Your task to perform on an android device: empty trash in the gmail app Image 0: 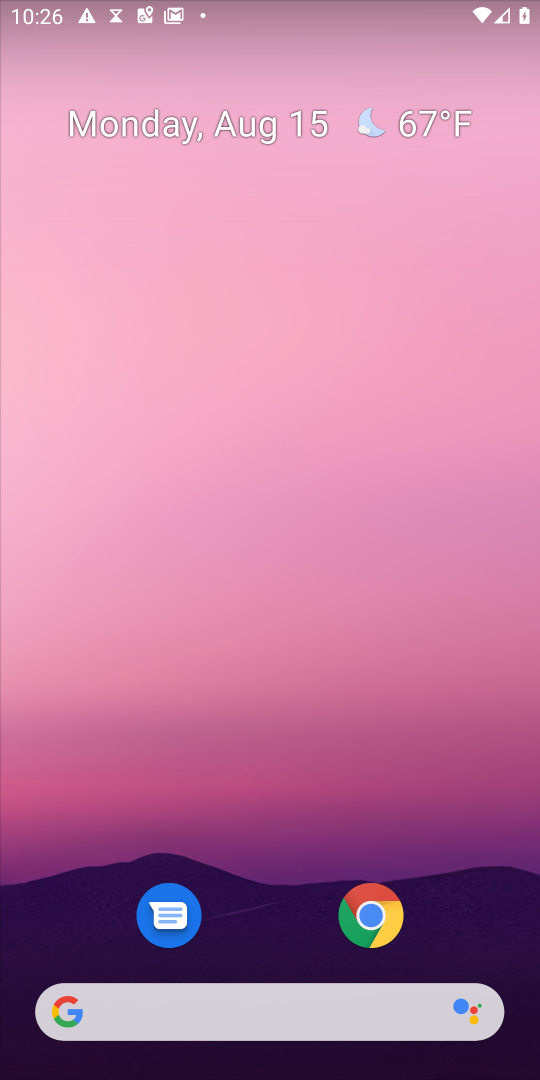
Step 0: press home button
Your task to perform on an android device: empty trash in the gmail app Image 1: 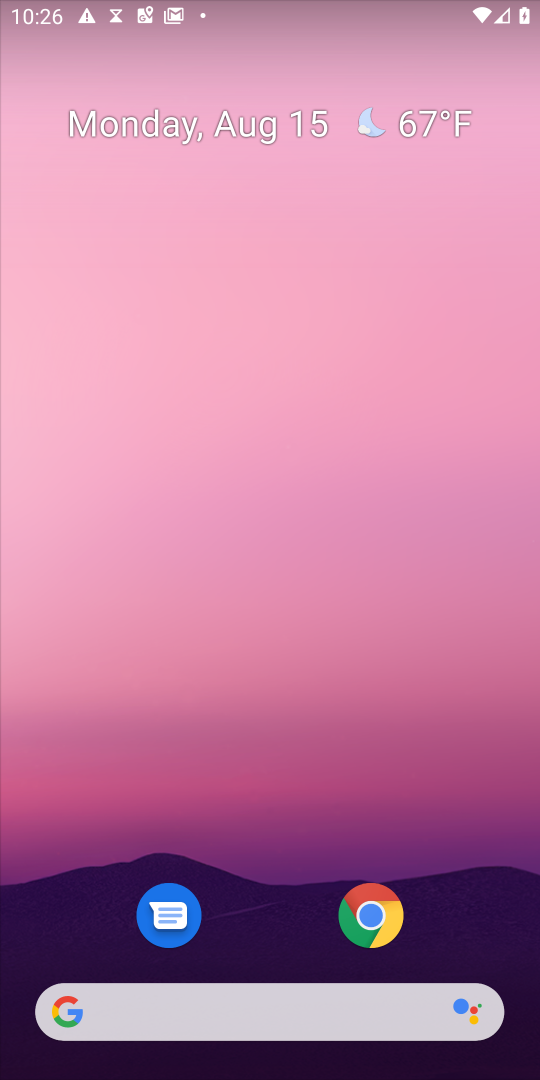
Step 1: drag from (272, 911) to (295, 278)
Your task to perform on an android device: empty trash in the gmail app Image 2: 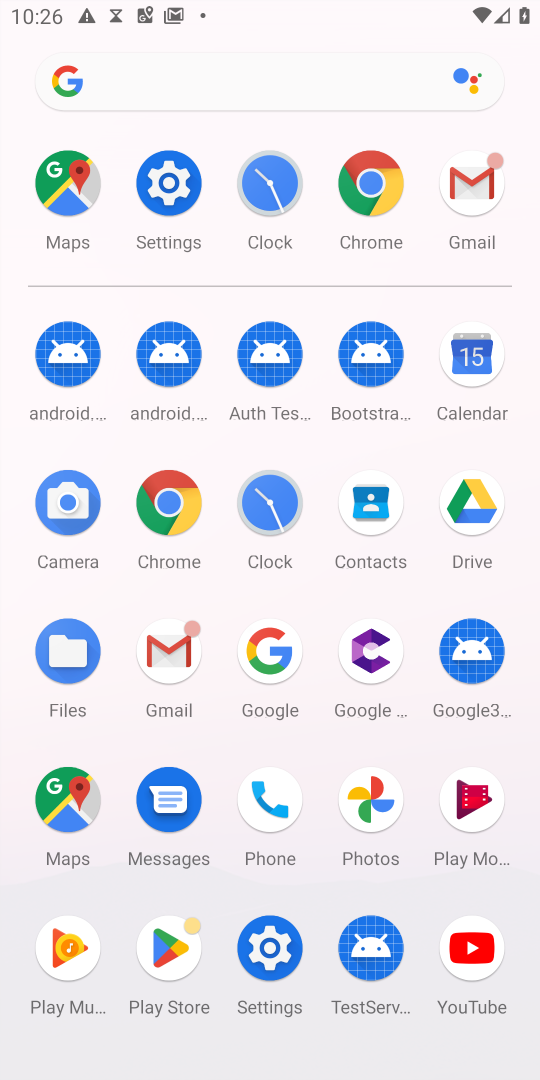
Step 2: click (169, 193)
Your task to perform on an android device: empty trash in the gmail app Image 3: 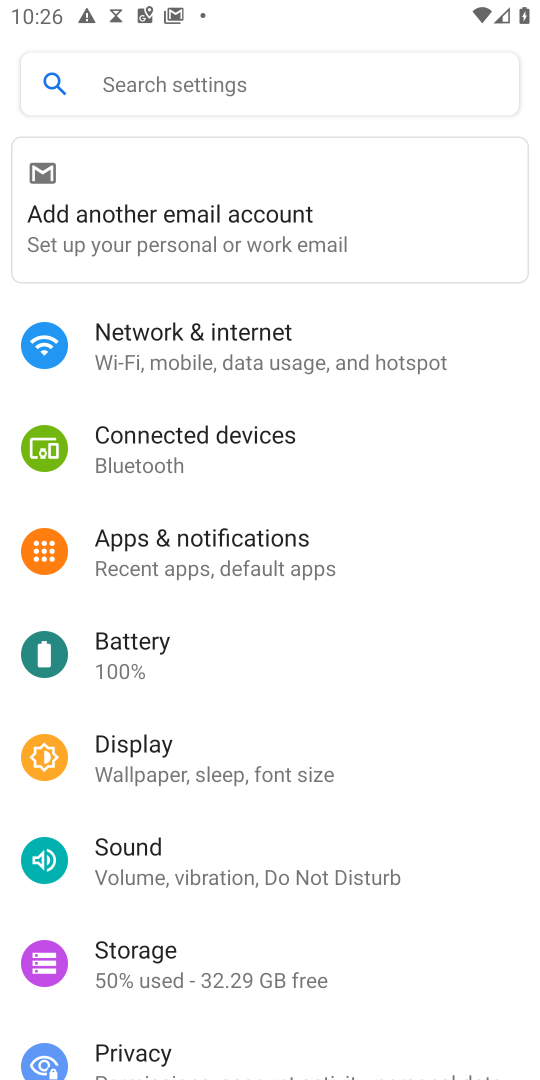
Step 3: press home button
Your task to perform on an android device: empty trash in the gmail app Image 4: 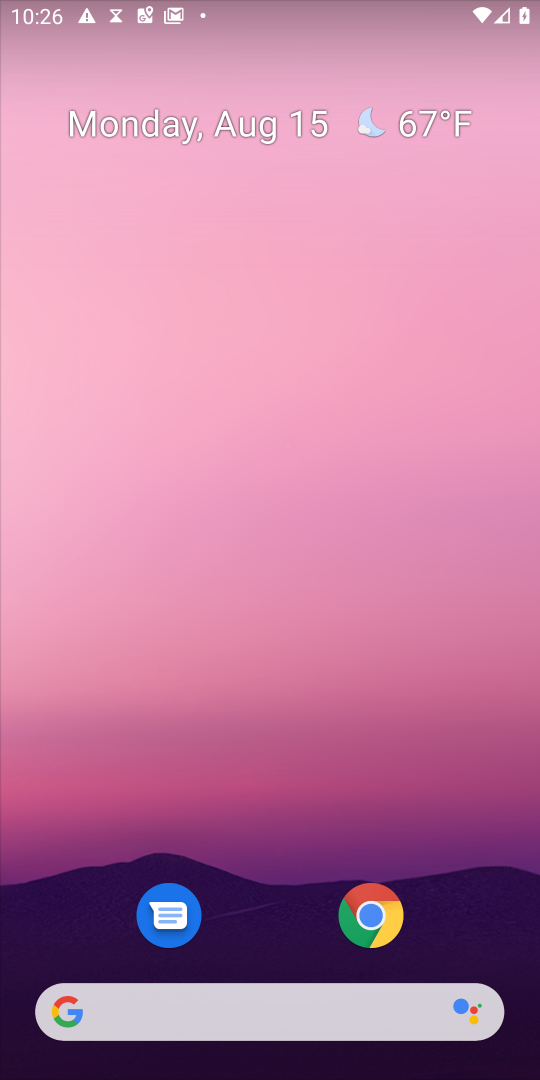
Step 4: drag from (263, 732) to (270, 228)
Your task to perform on an android device: empty trash in the gmail app Image 5: 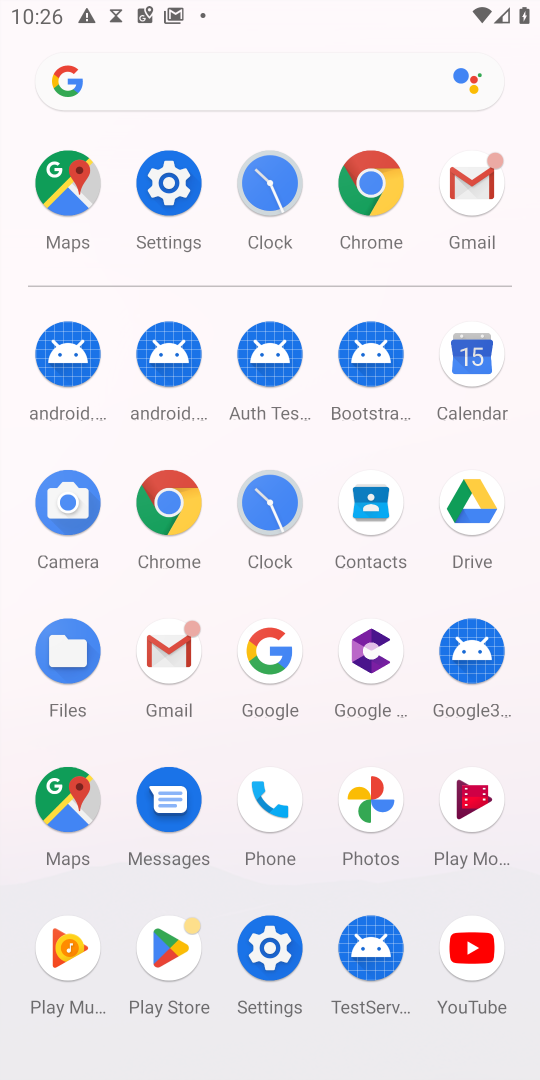
Step 5: click (476, 187)
Your task to perform on an android device: empty trash in the gmail app Image 6: 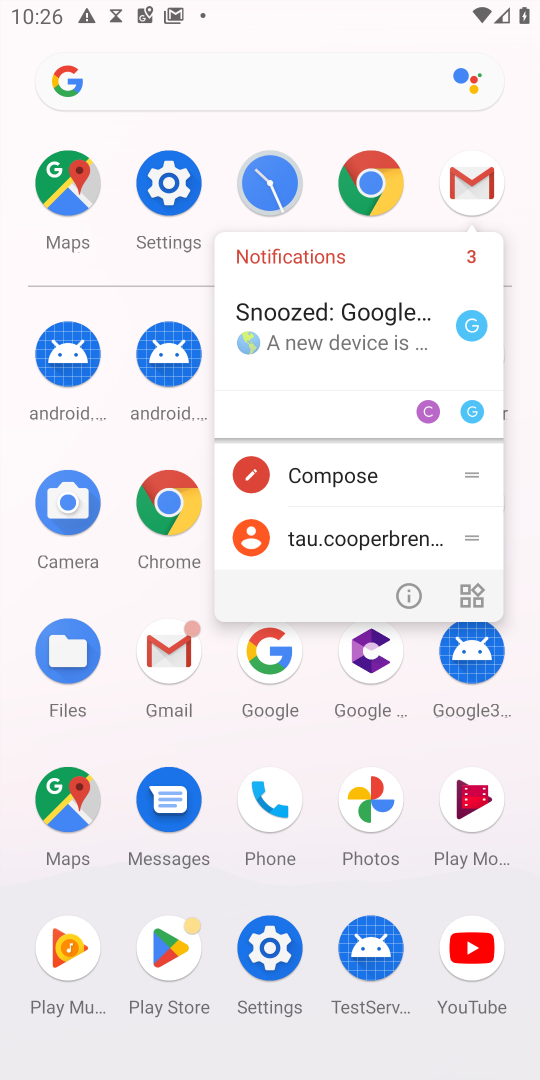
Step 6: click (476, 189)
Your task to perform on an android device: empty trash in the gmail app Image 7: 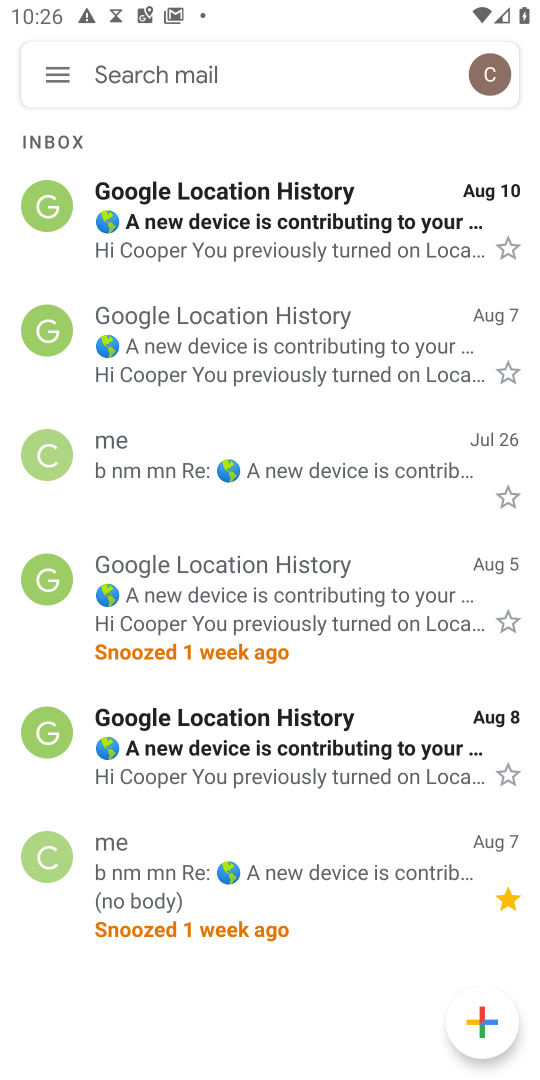
Step 7: click (40, 68)
Your task to perform on an android device: empty trash in the gmail app Image 8: 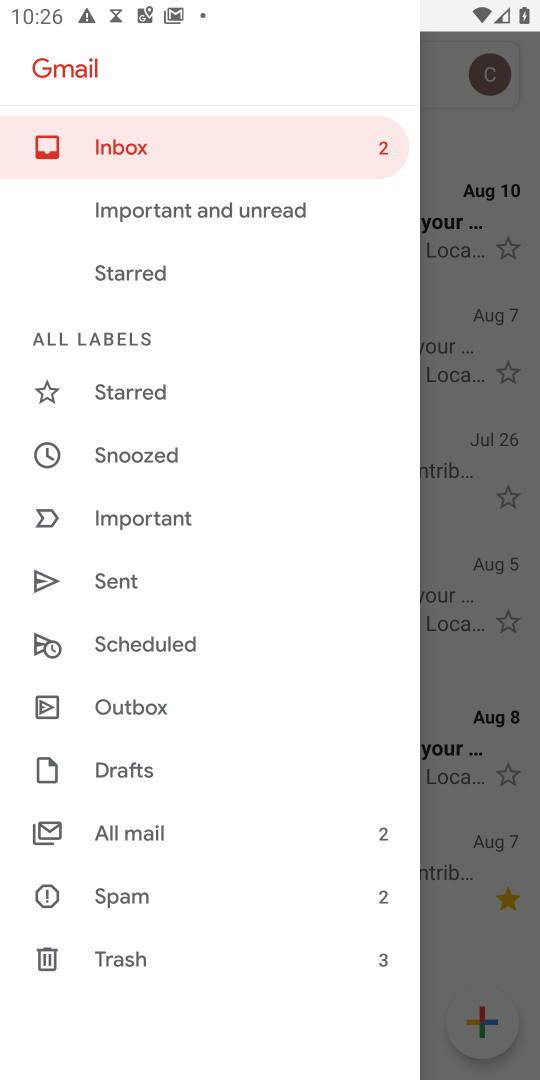
Step 8: click (132, 960)
Your task to perform on an android device: empty trash in the gmail app Image 9: 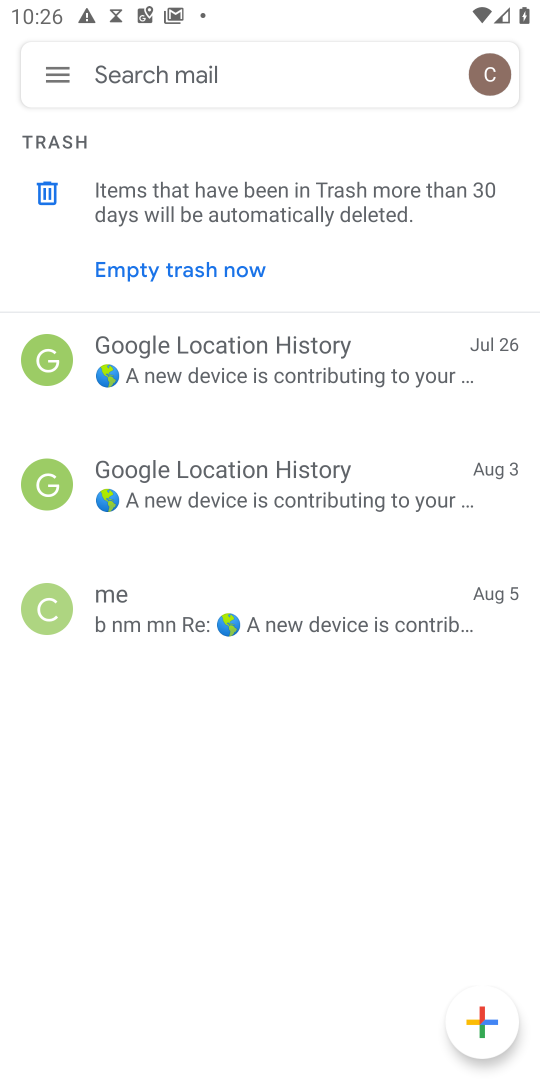
Step 9: click (185, 265)
Your task to perform on an android device: empty trash in the gmail app Image 10: 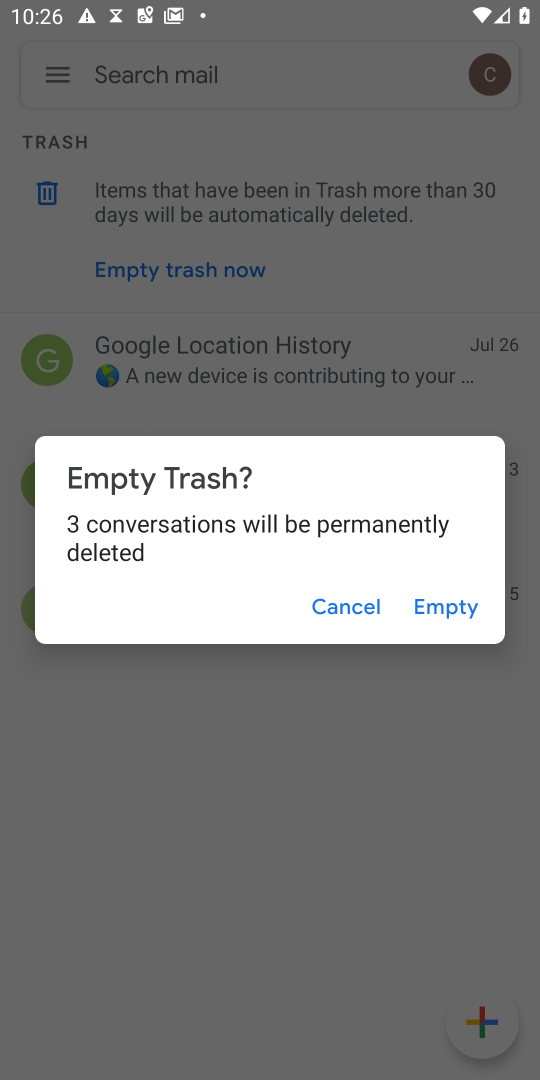
Step 10: click (453, 603)
Your task to perform on an android device: empty trash in the gmail app Image 11: 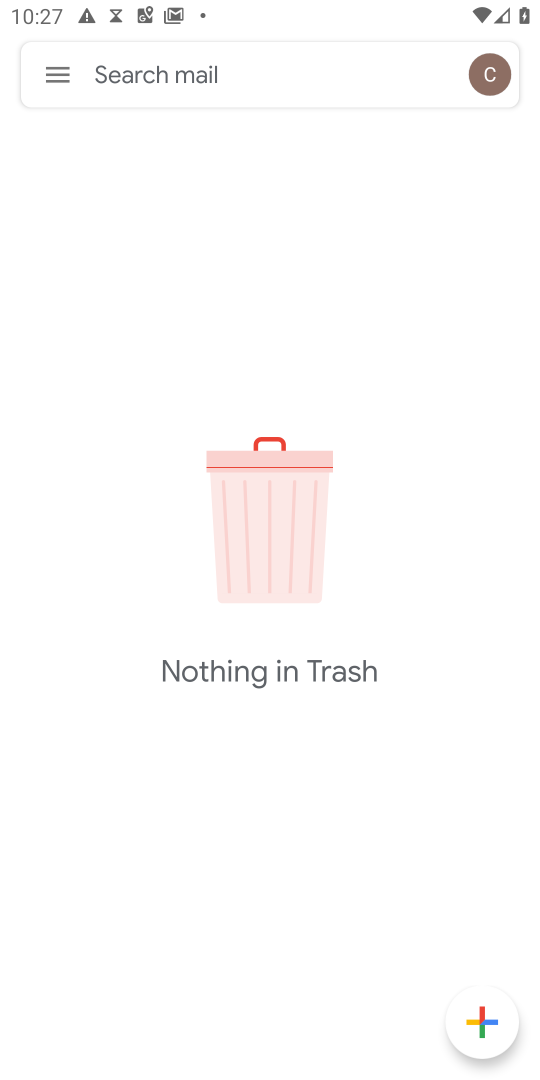
Step 11: task complete